Your task to perform on an android device: uninstall "LiveIn - Share Your Moment" Image 0: 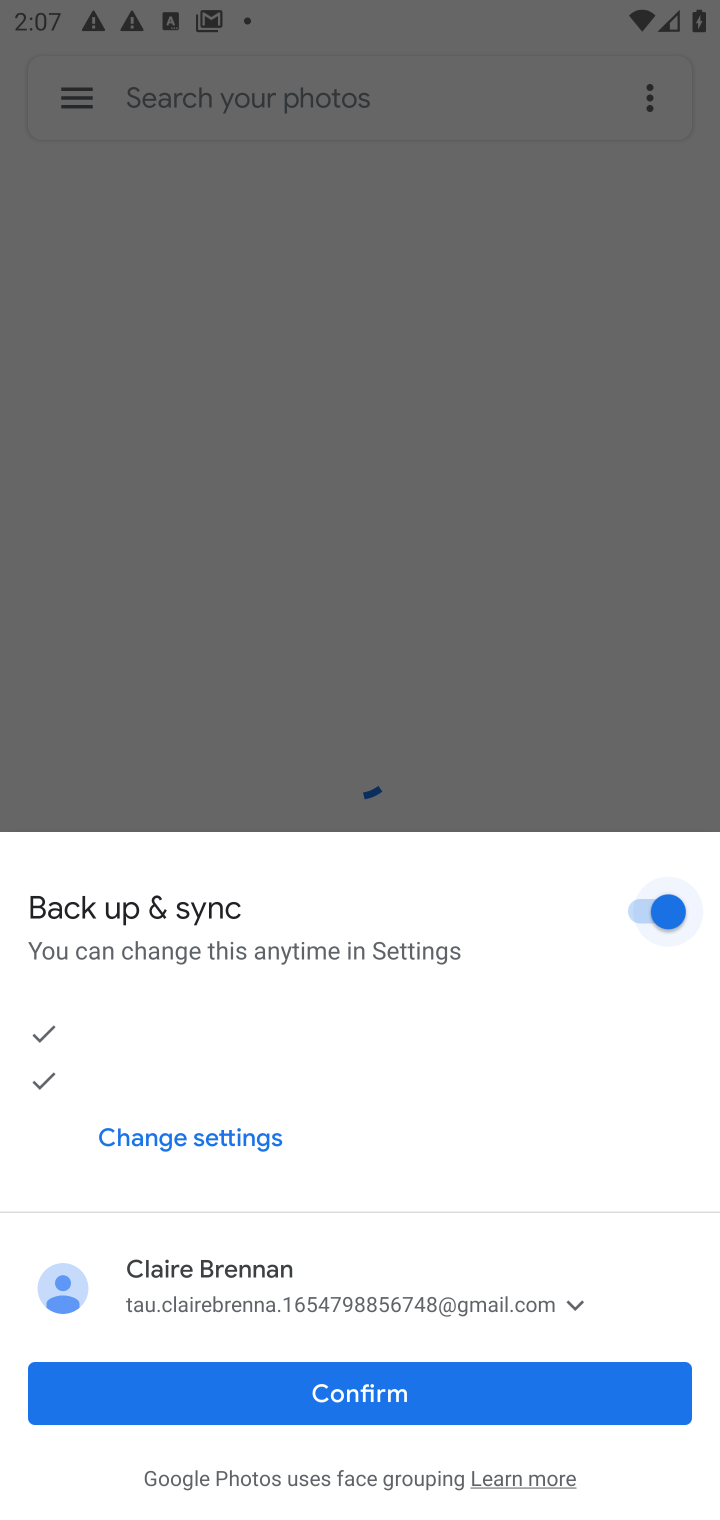
Step 0: press home button
Your task to perform on an android device: uninstall "LiveIn - Share Your Moment" Image 1: 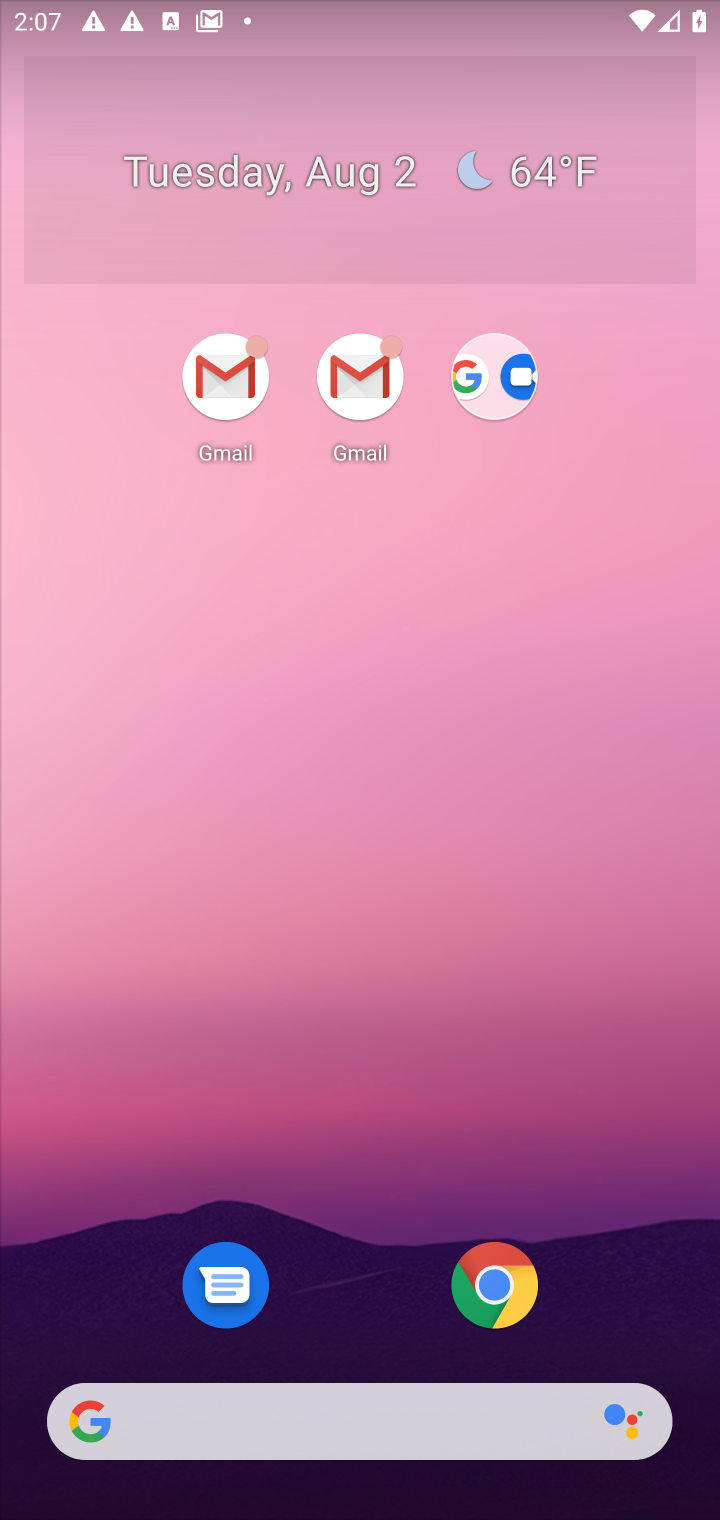
Step 1: drag from (324, 938) to (377, 321)
Your task to perform on an android device: uninstall "LiveIn - Share Your Moment" Image 2: 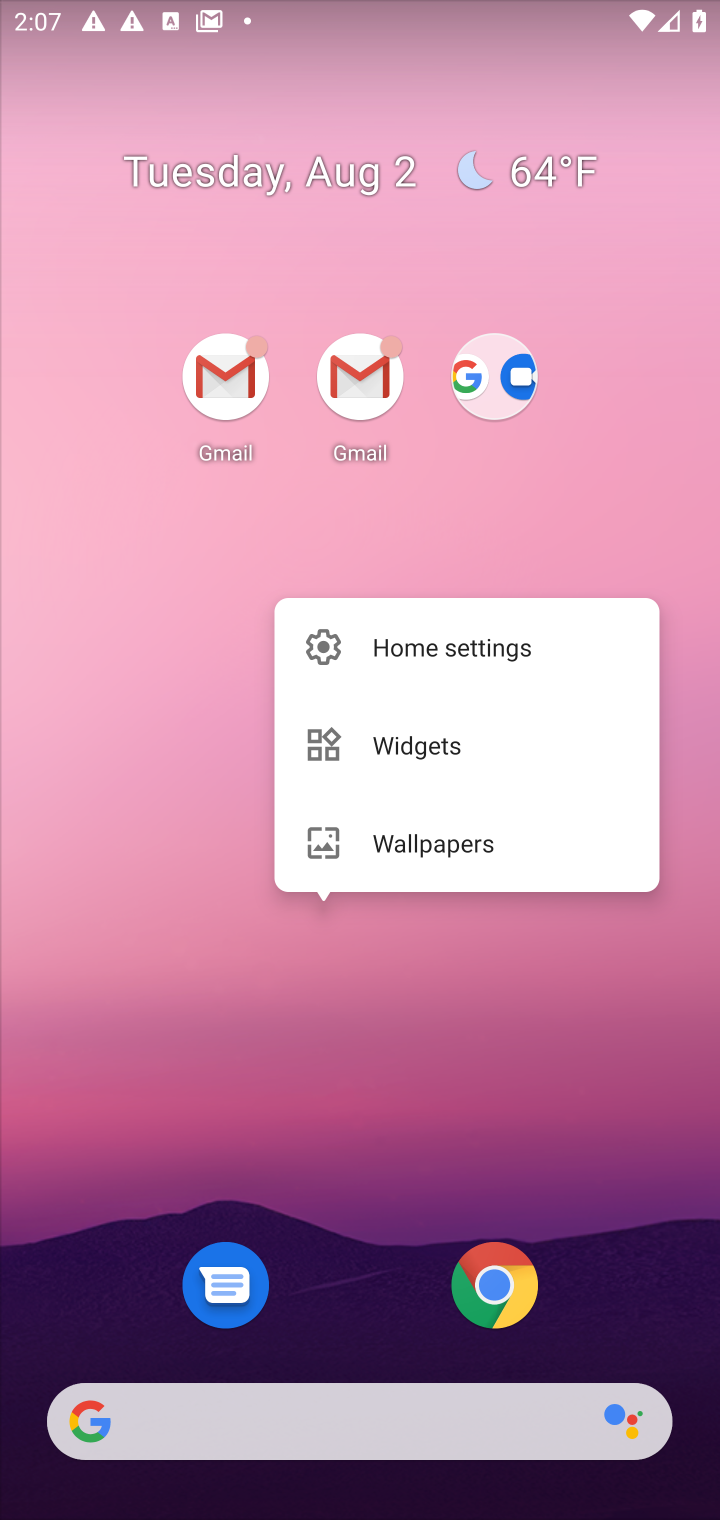
Step 2: click (664, 405)
Your task to perform on an android device: uninstall "LiveIn - Share Your Moment" Image 3: 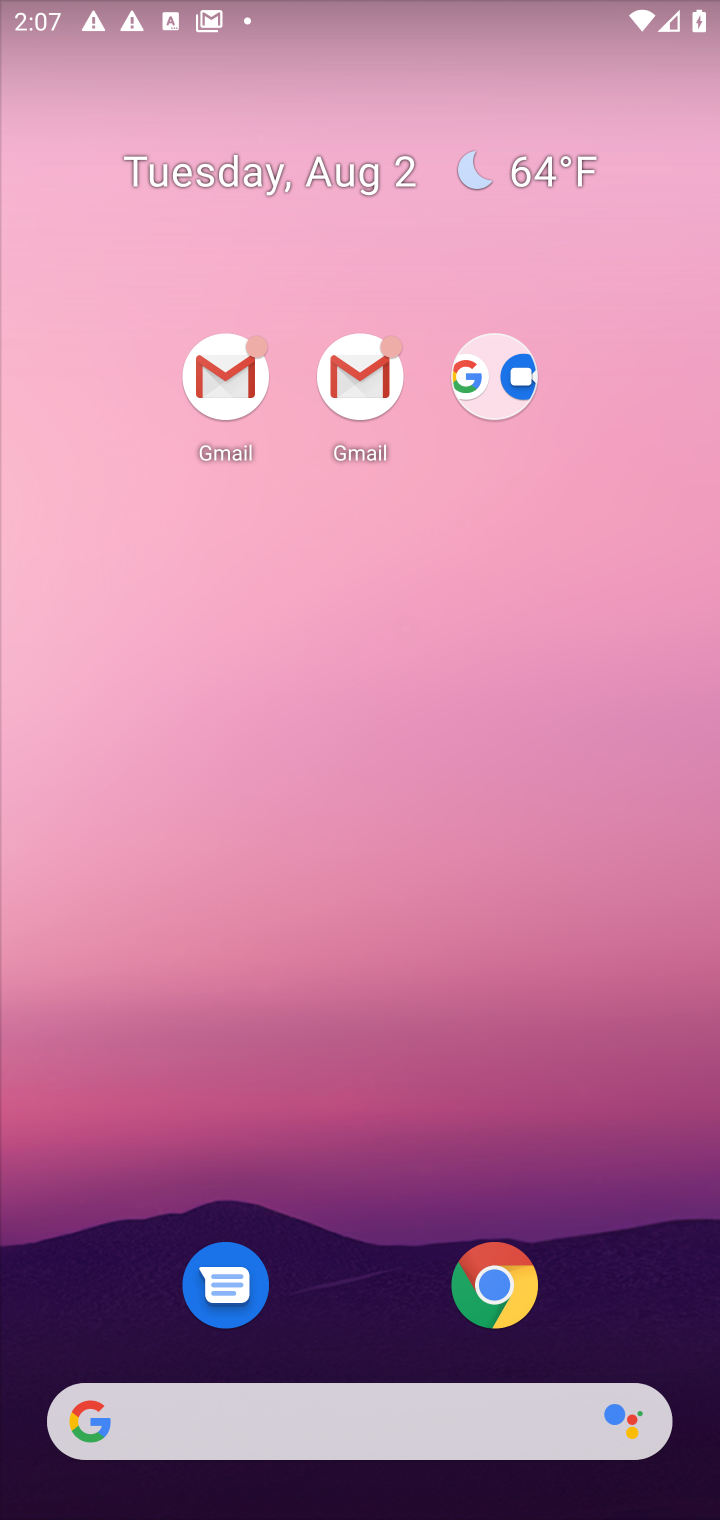
Step 3: drag from (374, 1272) to (464, 23)
Your task to perform on an android device: uninstall "LiveIn - Share Your Moment" Image 4: 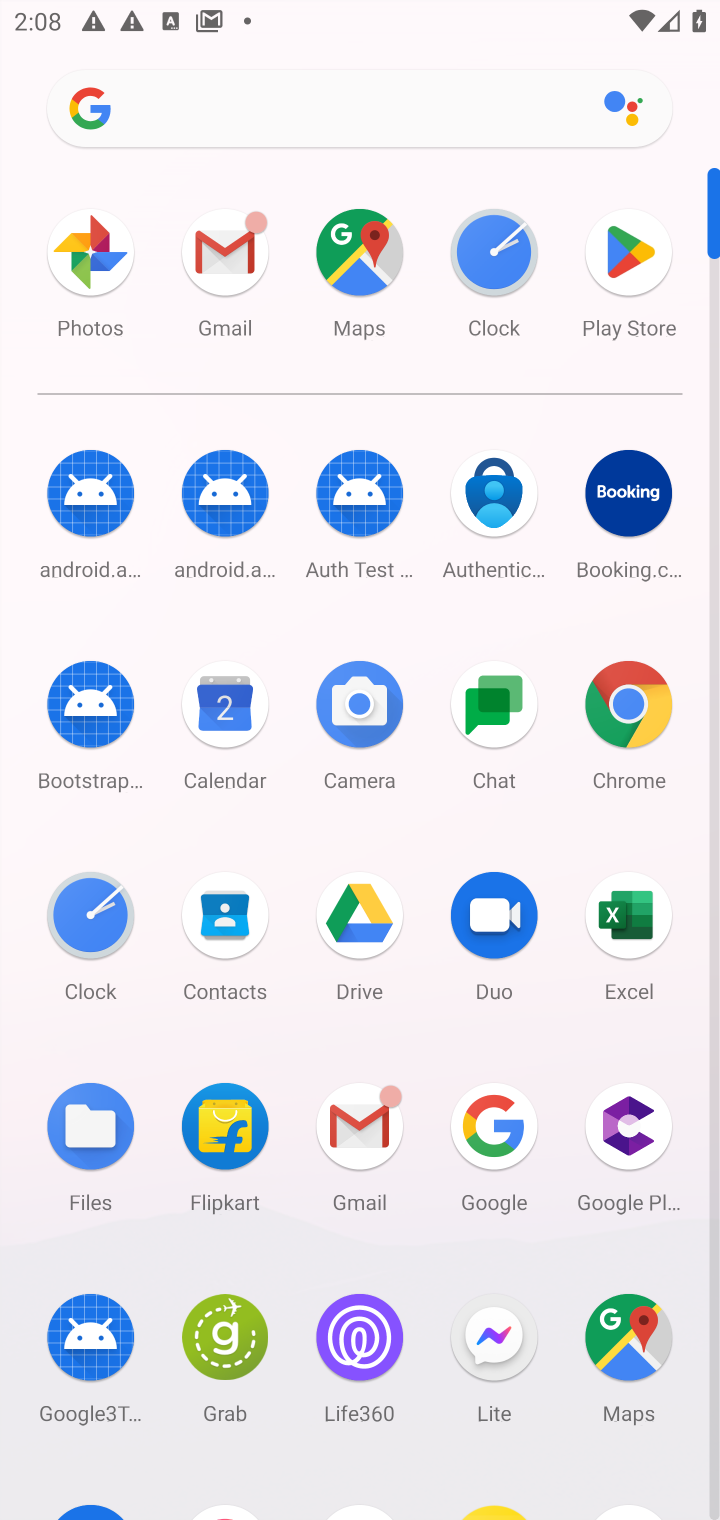
Step 4: drag from (434, 1037) to (453, 295)
Your task to perform on an android device: uninstall "LiveIn - Share Your Moment" Image 5: 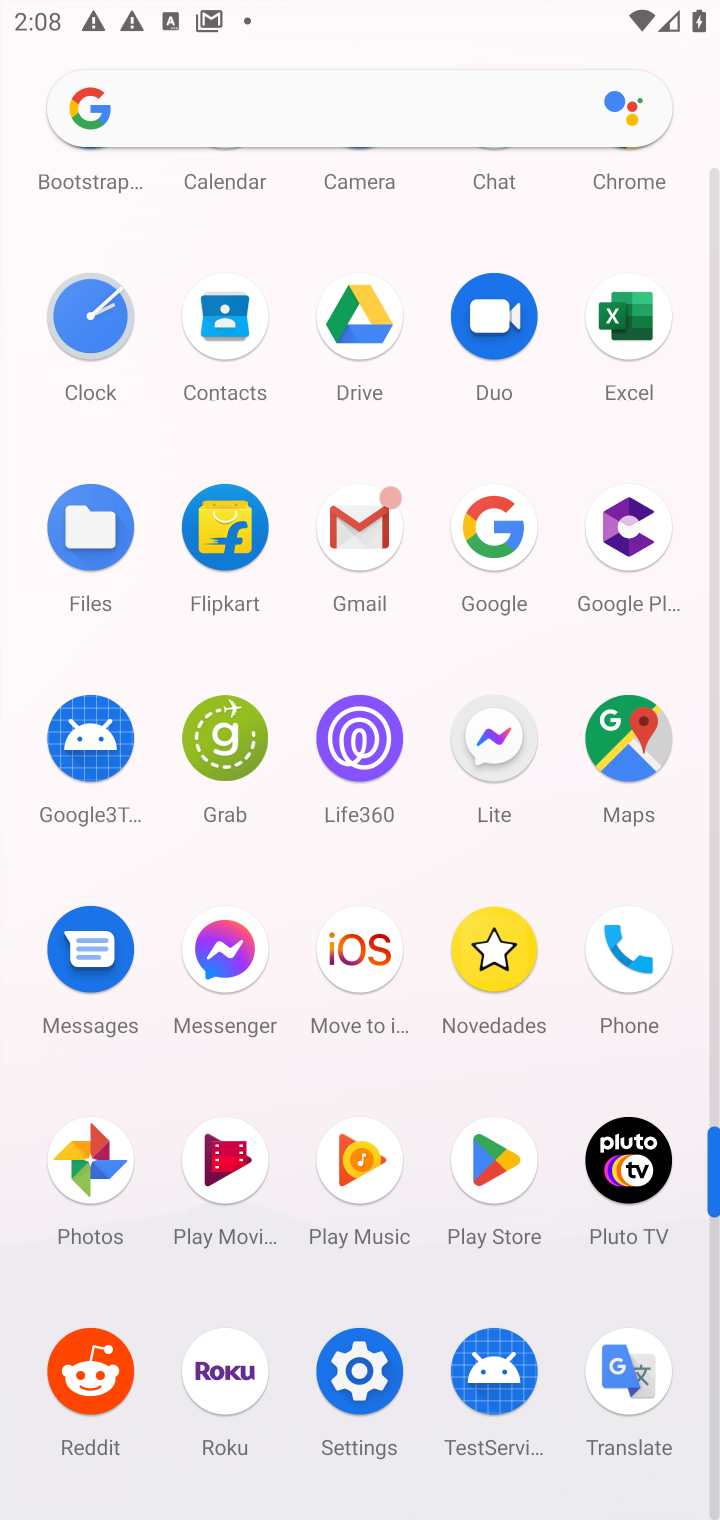
Step 5: click (495, 1132)
Your task to perform on an android device: uninstall "LiveIn - Share Your Moment" Image 6: 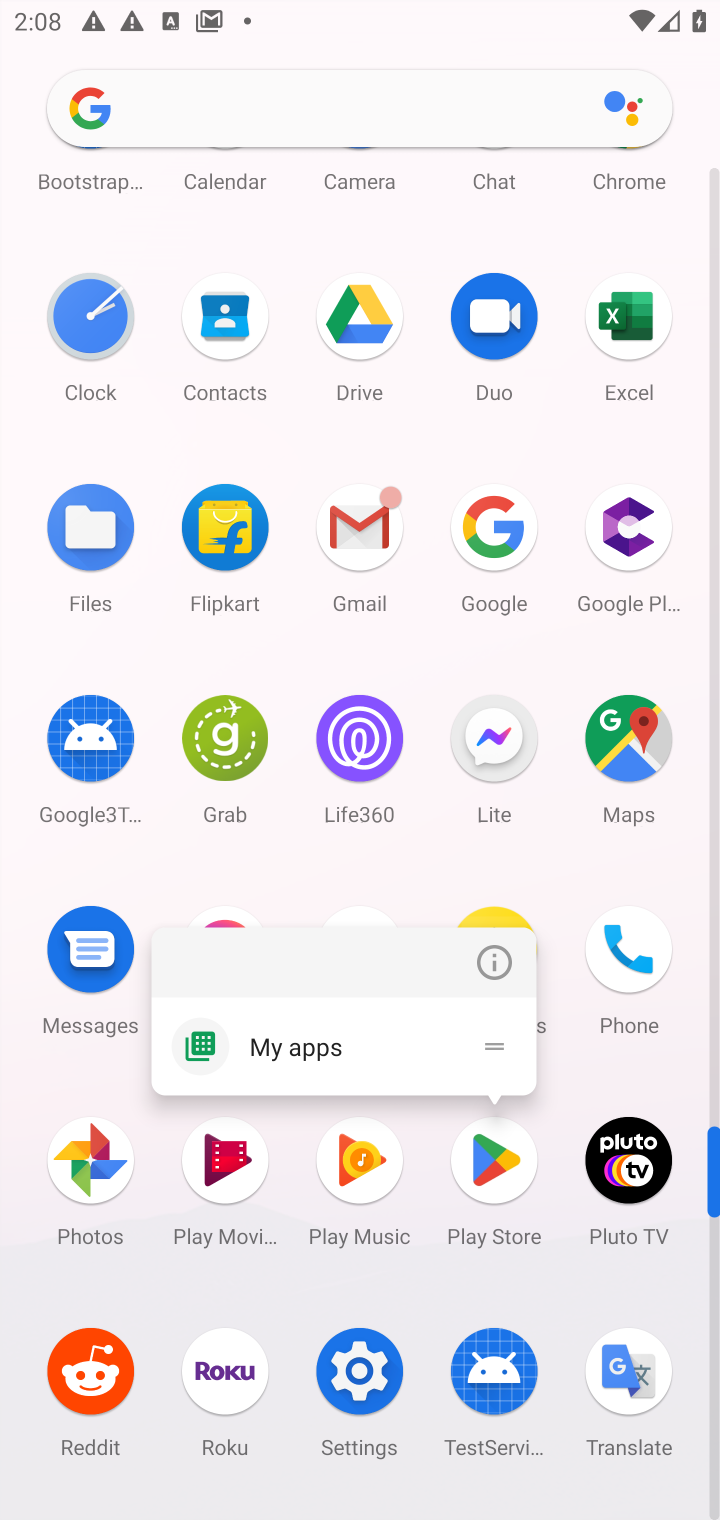
Step 6: click (501, 1151)
Your task to perform on an android device: uninstall "LiveIn - Share Your Moment" Image 7: 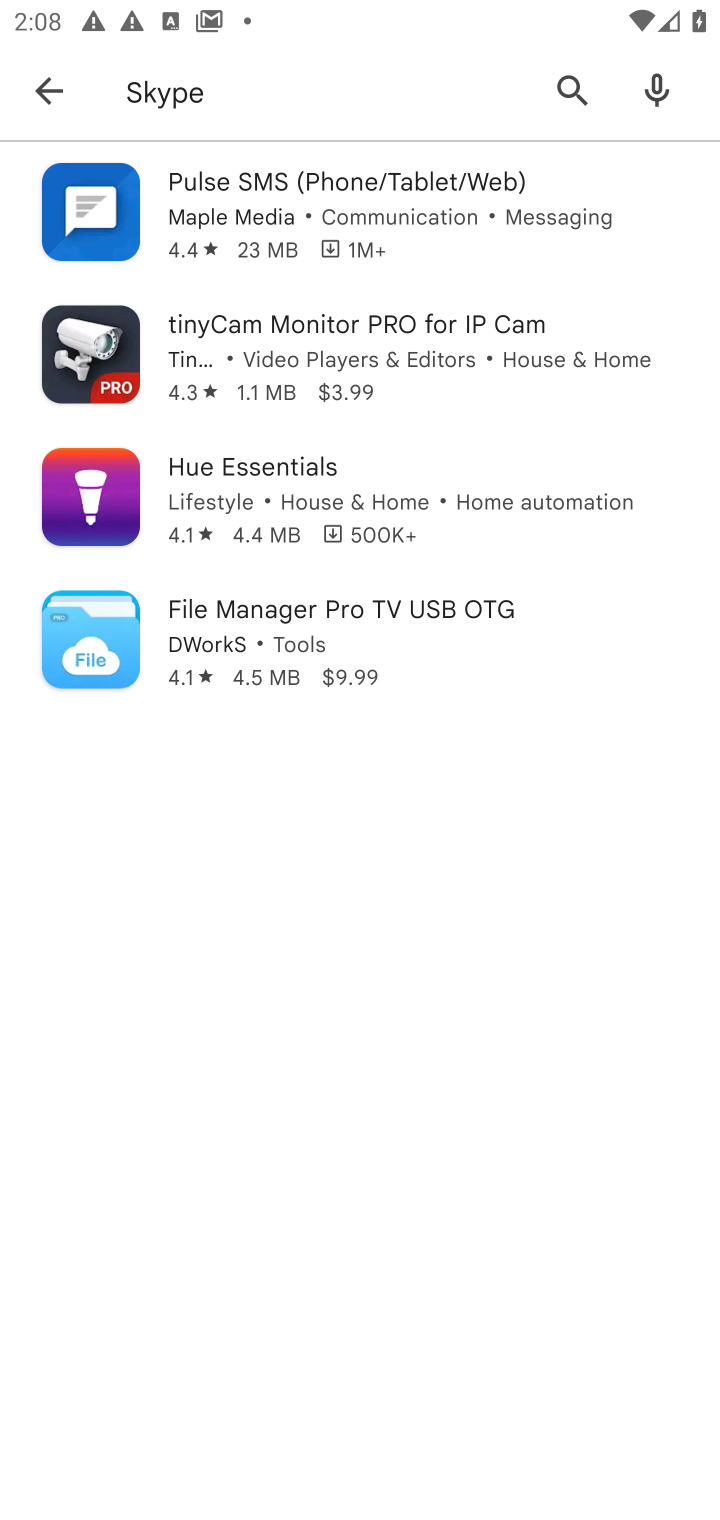
Step 7: click (285, 89)
Your task to perform on an android device: uninstall "LiveIn - Share Your Moment" Image 8: 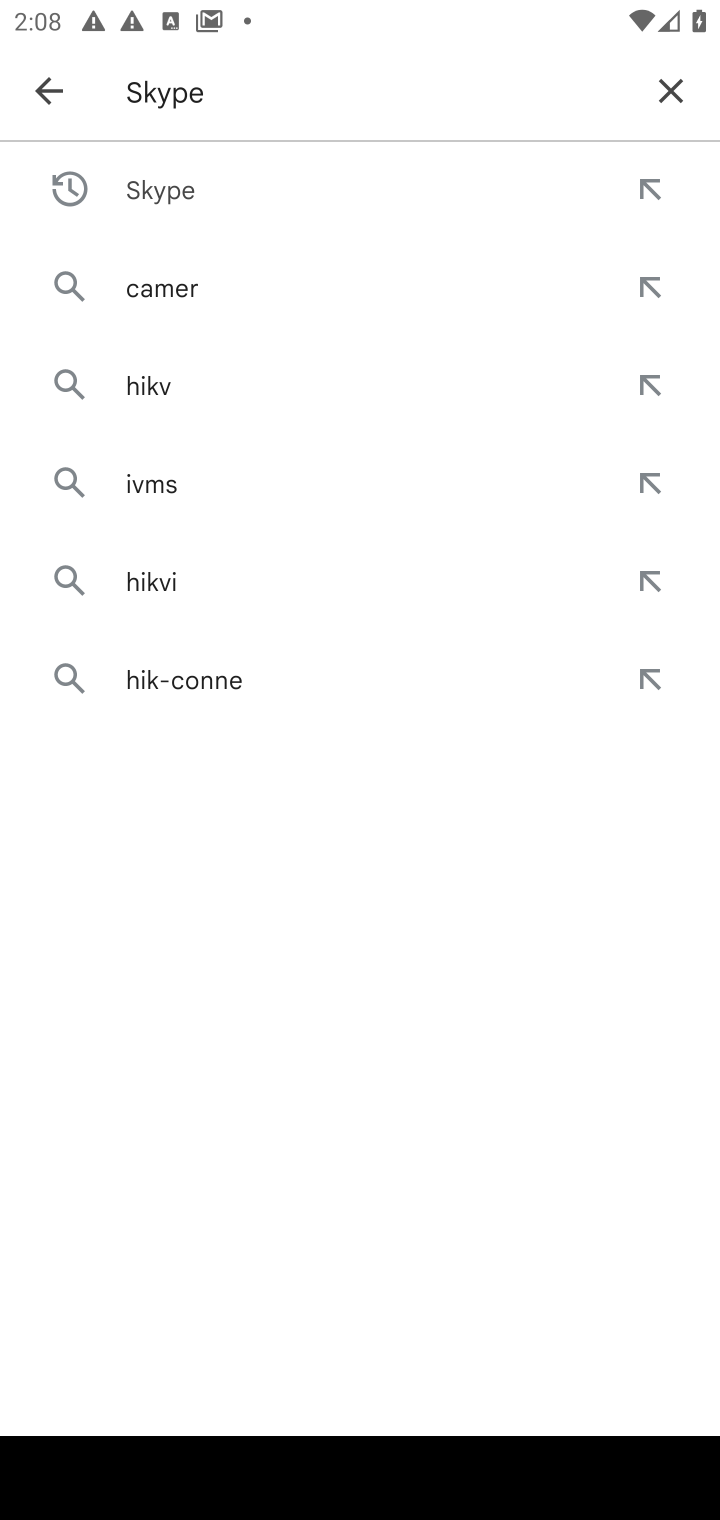
Step 8: click (661, 100)
Your task to perform on an android device: uninstall "LiveIn - Share Your Moment" Image 9: 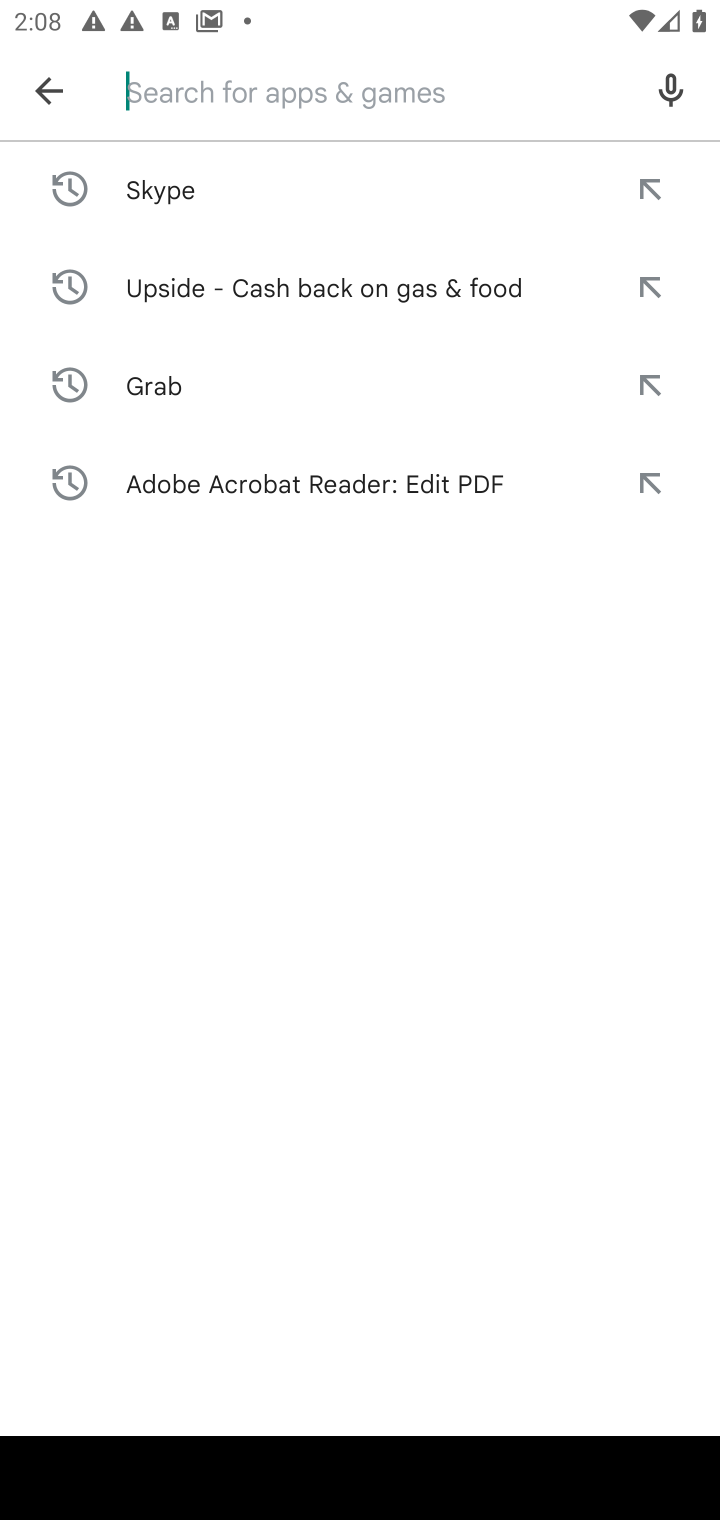
Step 9: type ""
Your task to perform on an android device: uninstall "LiveIn - Share Your Moment" Image 10: 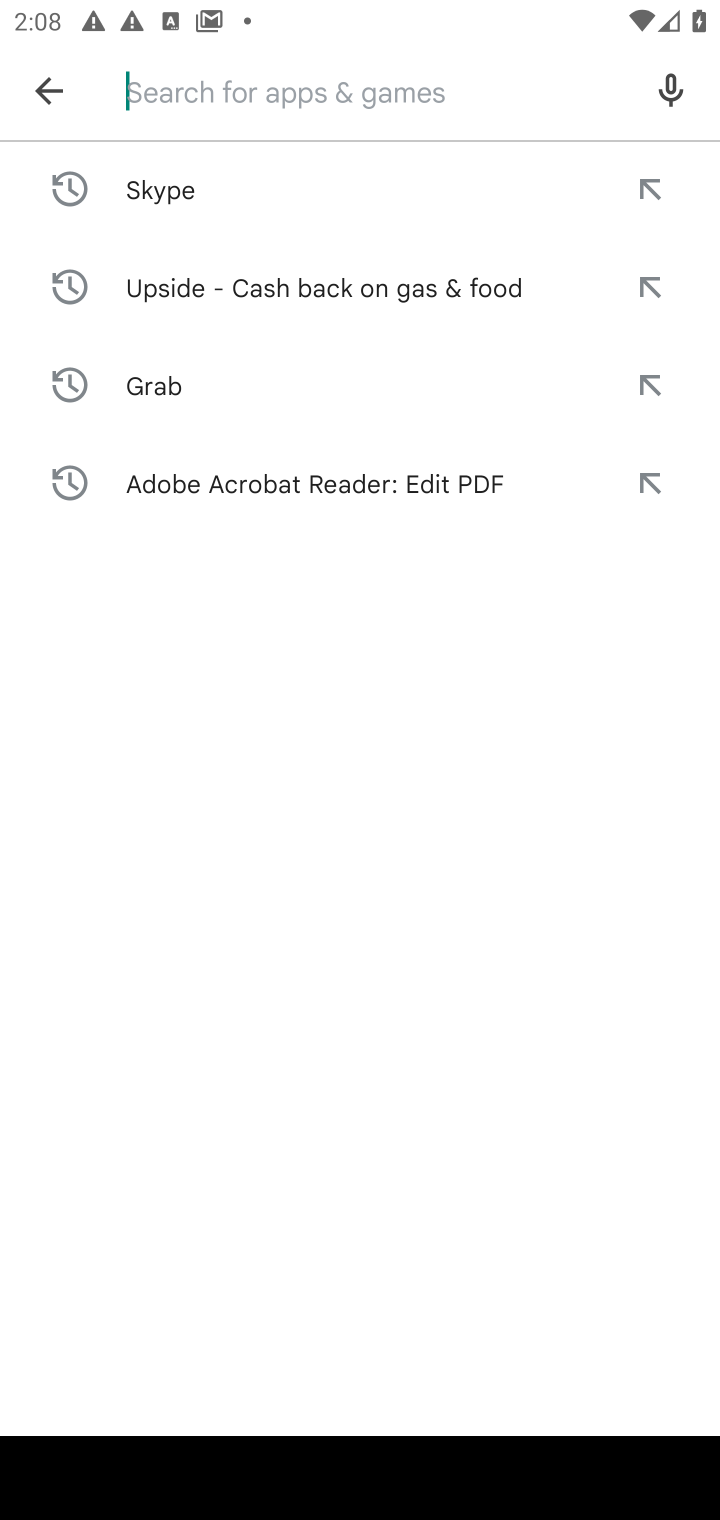
Step 10: type "Liveln -Share Your Moment"
Your task to perform on an android device: uninstall "LiveIn - Share Your Moment" Image 11: 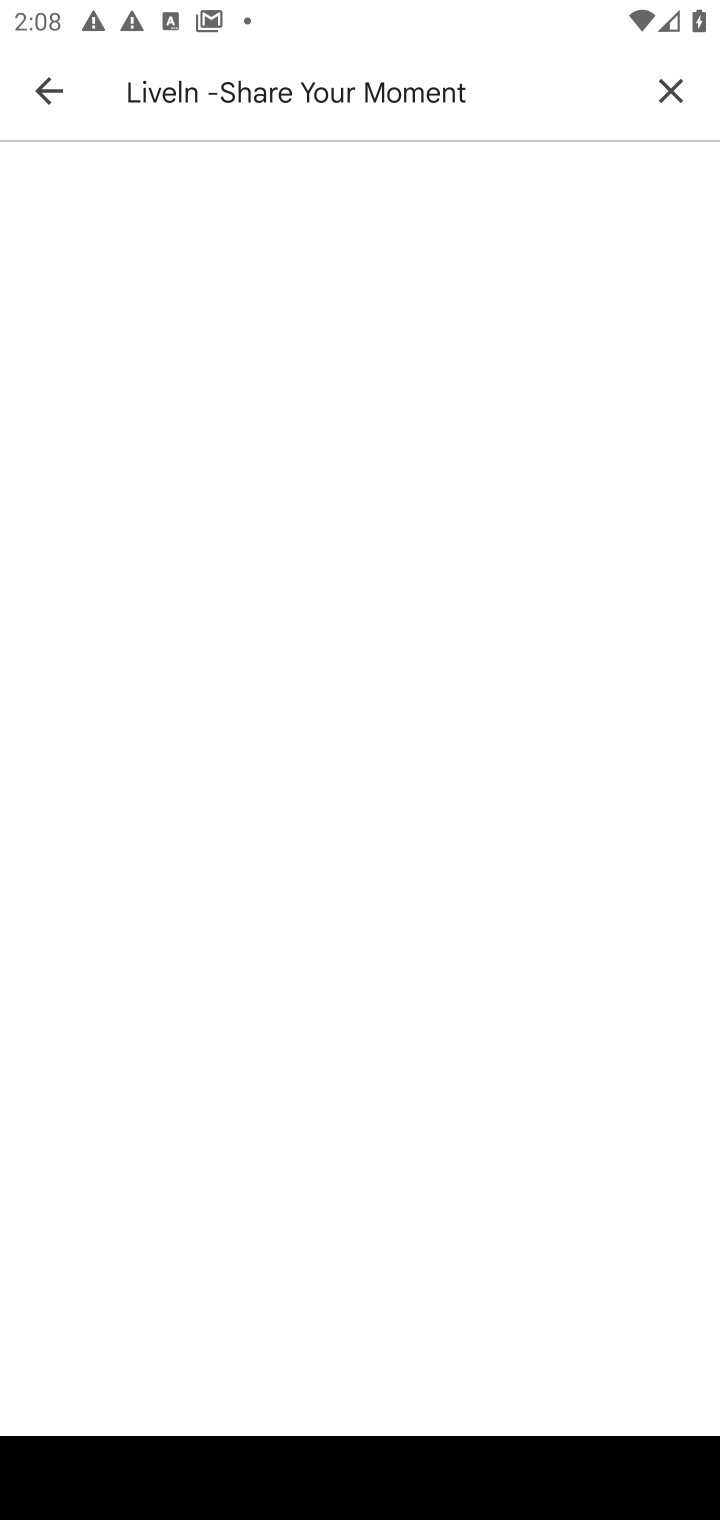
Step 11: press enter
Your task to perform on an android device: uninstall "LiveIn - Share Your Moment" Image 12: 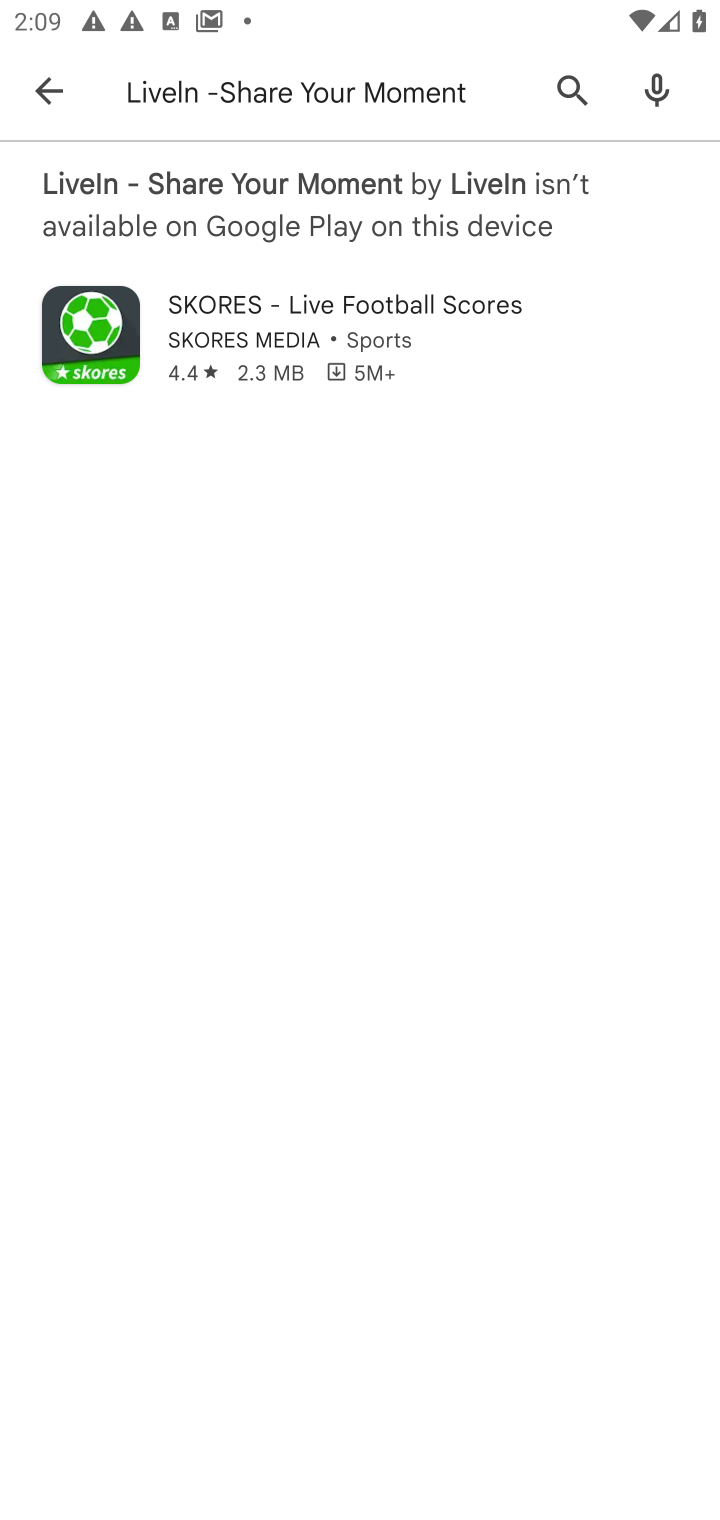
Step 12: task complete